Your task to perform on an android device: delete browsing data in the chrome app Image 0: 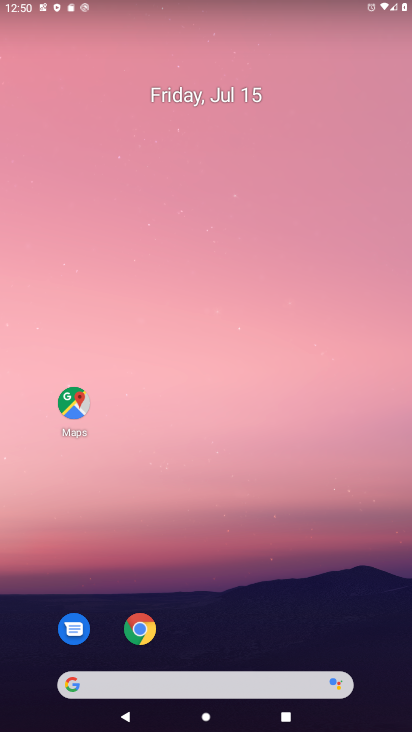
Step 0: press home button
Your task to perform on an android device: delete browsing data in the chrome app Image 1: 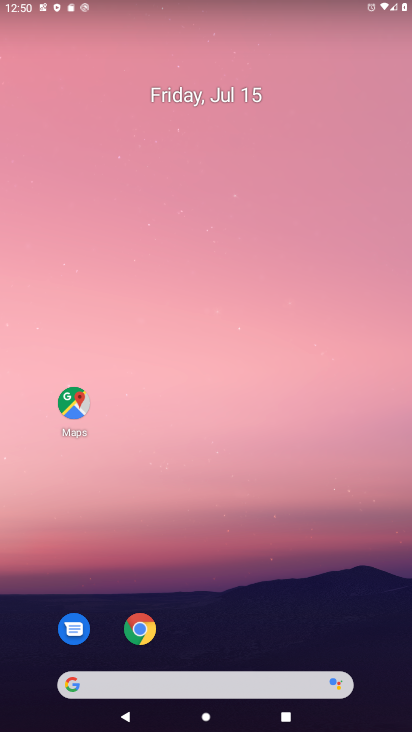
Step 1: drag from (256, 610) to (315, 157)
Your task to perform on an android device: delete browsing data in the chrome app Image 2: 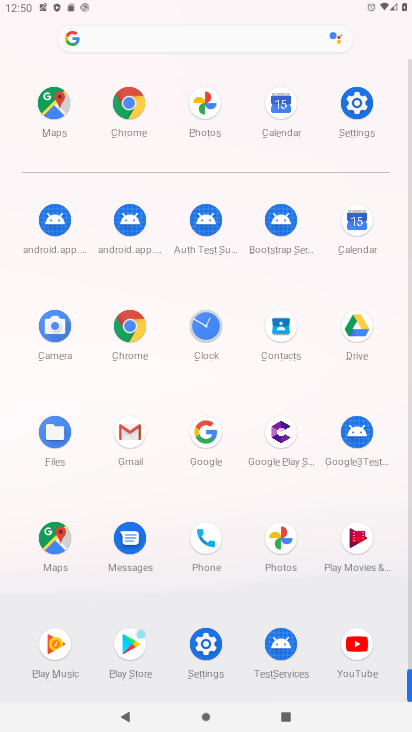
Step 2: click (138, 109)
Your task to perform on an android device: delete browsing data in the chrome app Image 3: 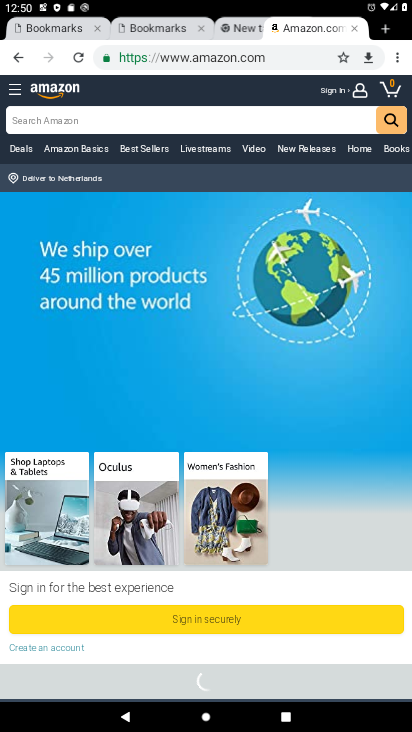
Step 3: drag from (400, 61) to (268, 382)
Your task to perform on an android device: delete browsing data in the chrome app Image 4: 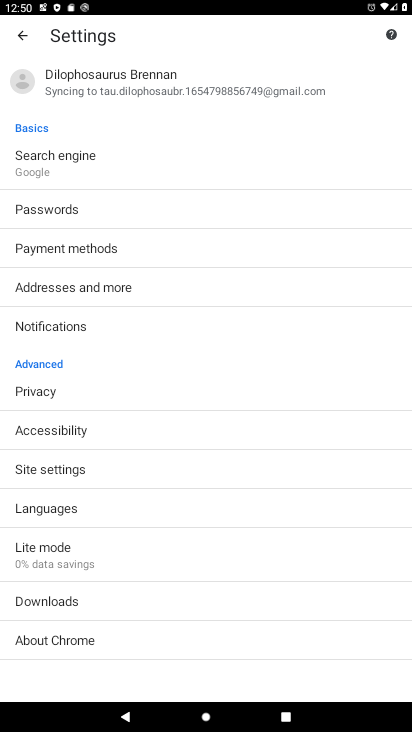
Step 4: click (36, 395)
Your task to perform on an android device: delete browsing data in the chrome app Image 5: 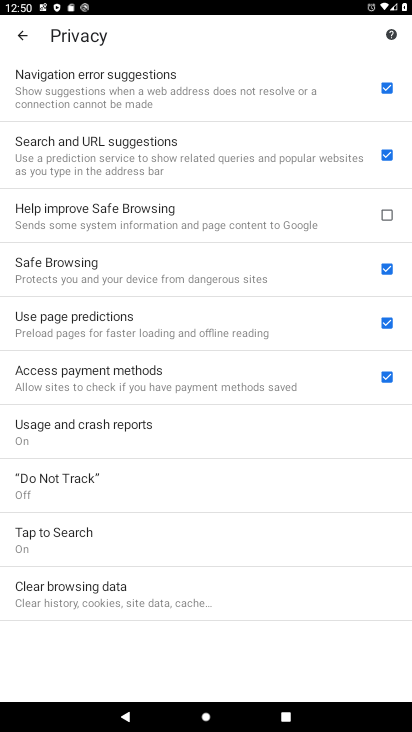
Step 5: click (79, 593)
Your task to perform on an android device: delete browsing data in the chrome app Image 6: 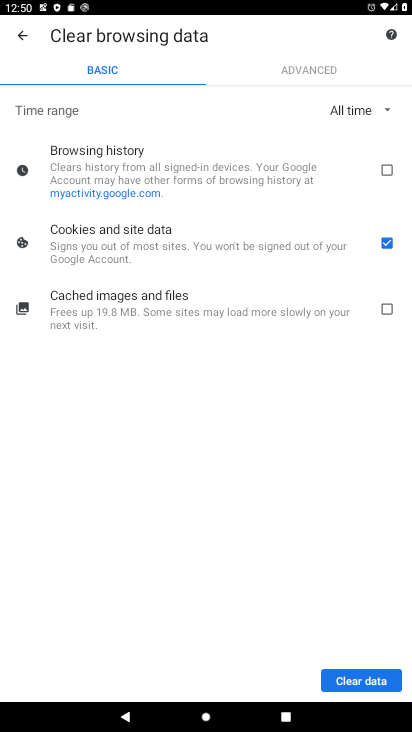
Step 6: click (390, 170)
Your task to perform on an android device: delete browsing data in the chrome app Image 7: 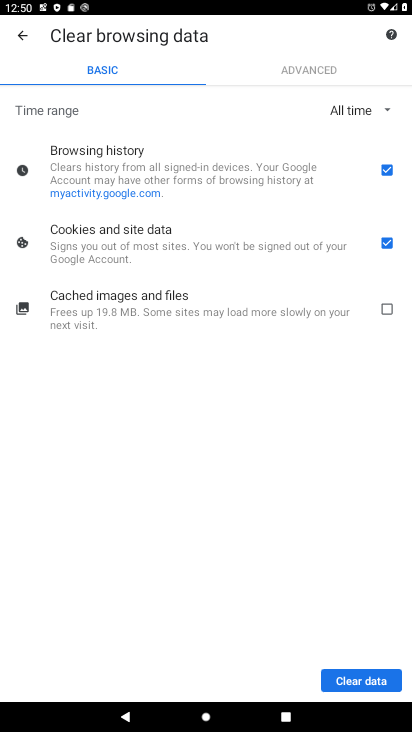
Step 7: click (392, 305)
Your task to perform on an android device: delete browsing data in the chrome app Image 8: 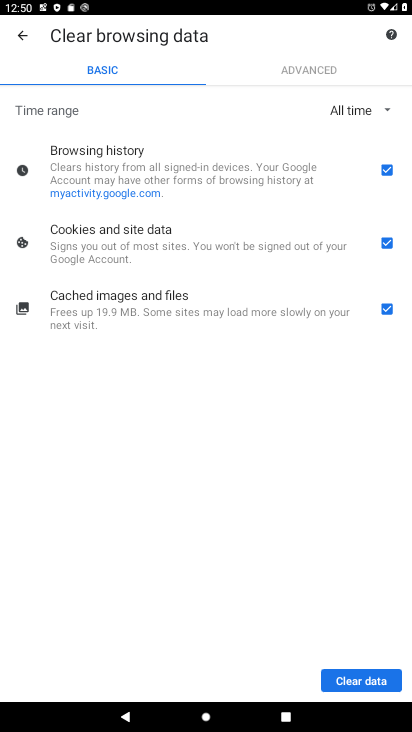
Step 8: click (367, 684)
Your task to perform on an android device: delete browsing data in the chrome app Image 9: 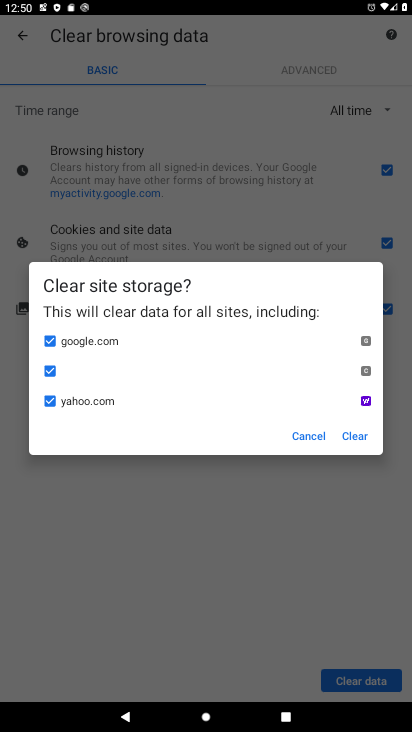
Step 9: click (367, 434)
Your task to perform on an android device: delete browsing data in the chrome app Image 10: 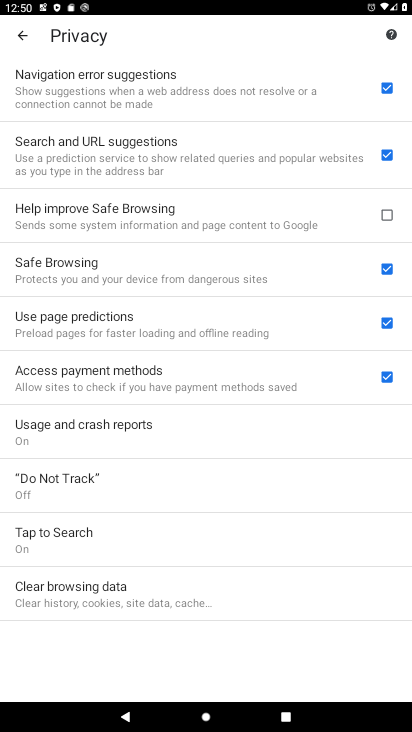
Step 10: task complete